Your task to perform on an android device: Open internet settings Image 0: 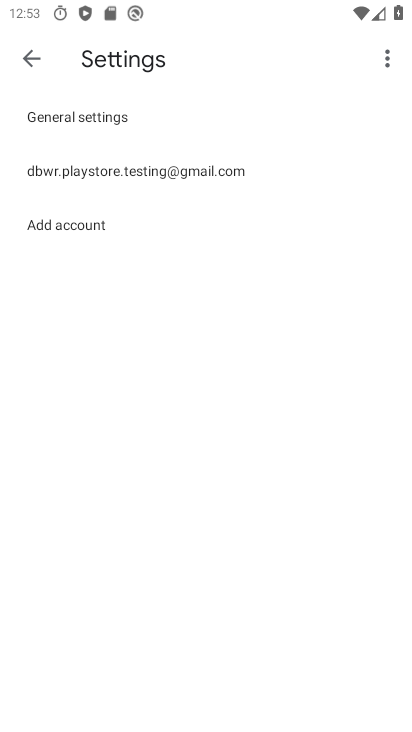
Step 0: press home button
Your task to perform on an android device: Open internet settings Image 1: 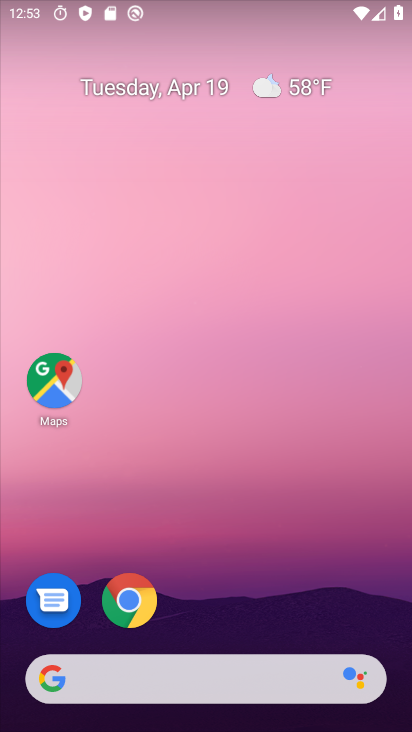
Step 1: drag from (215, 705) to (294, 187)
Your task to perform on an android device: Open internet settings Image 2: 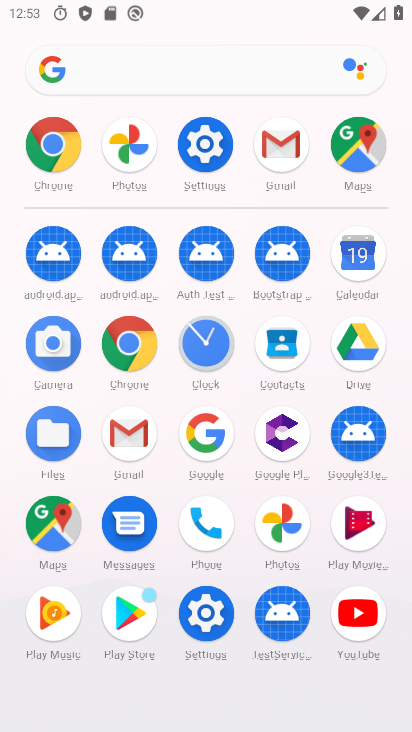
Step 2: click (209, 156)
Your task to perform on an android device: Open internet settings Image 3: 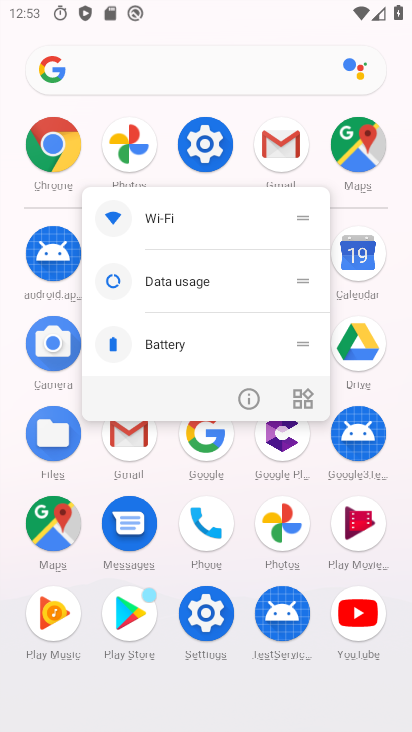
Step 3: click (195, 161)
Your task to perform on an android device: Open internet settings Image 4: 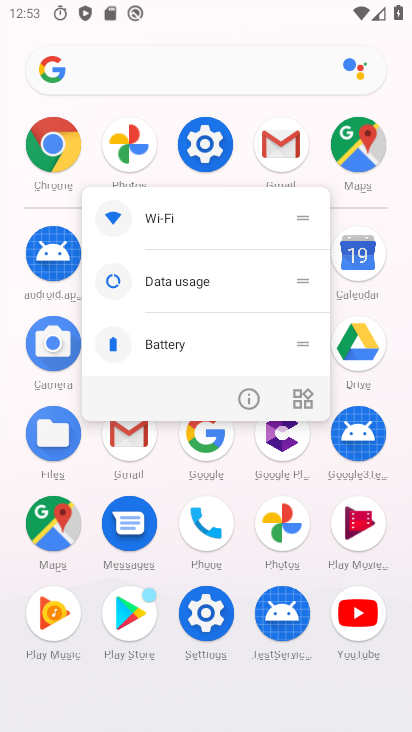
Step 4: click (192, 163)
Your task to perform on an android device: Open internet settings Image 5: 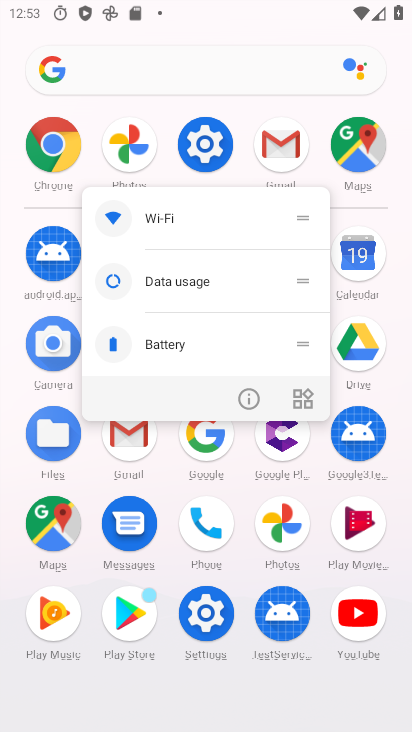
Step 5: click (195, 153)
Your task to perform on an android device: Open internet settings Image 6: 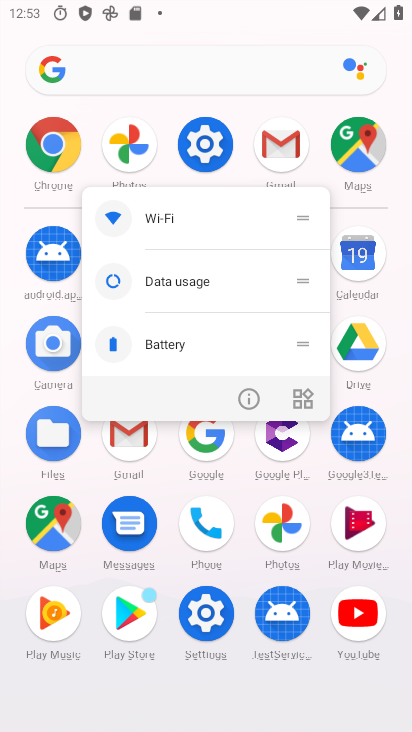
Step 6: click (195, 153)
Your task to perform on an android device: Open internet settings Image 7: 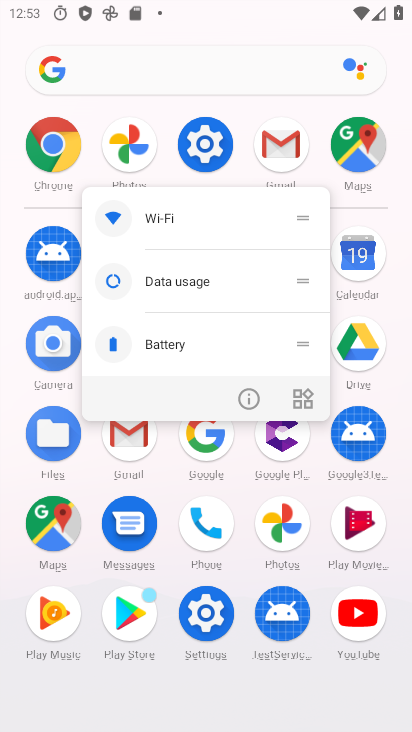
Step 7: click (195, 153)
Your task to perform on an android device: Open internet settings Image 8: 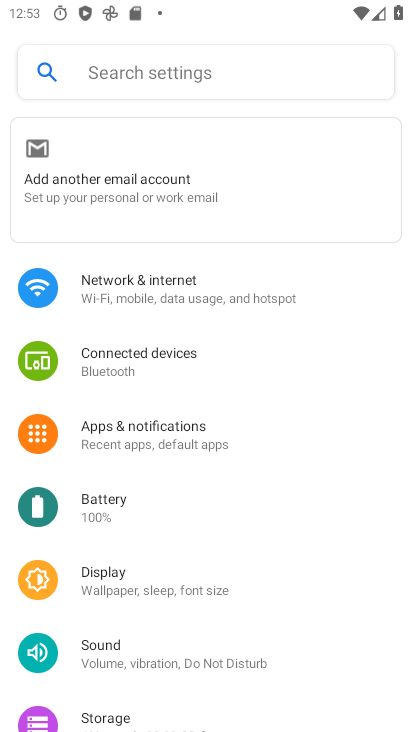
Step 8: click (138, 303)
Your task to perform on an android device: Open internet settings Image 9: 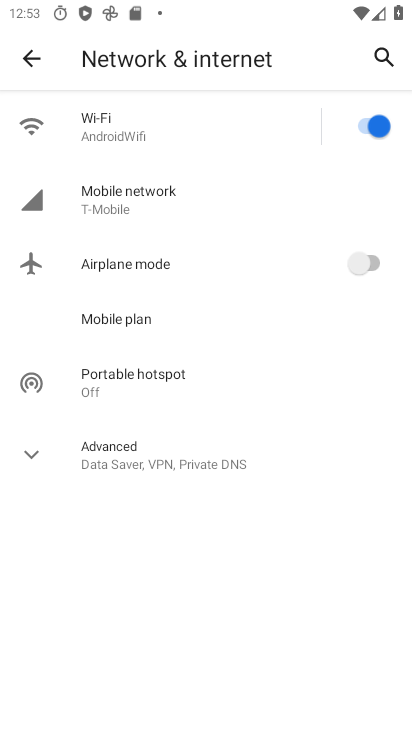
Step 9: task complete